Your task to perform on an android device: Go to privacy settings Image 0: 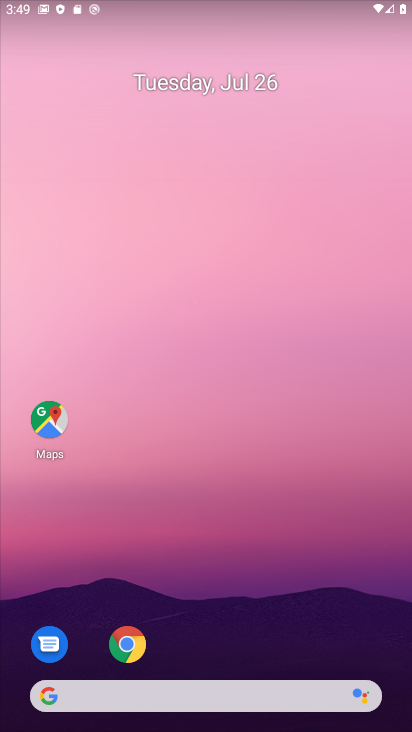
Step 0: drag from (389, 674) to (353, 196)
Your task to perform on an android device: Go to privacy settings Image 1: 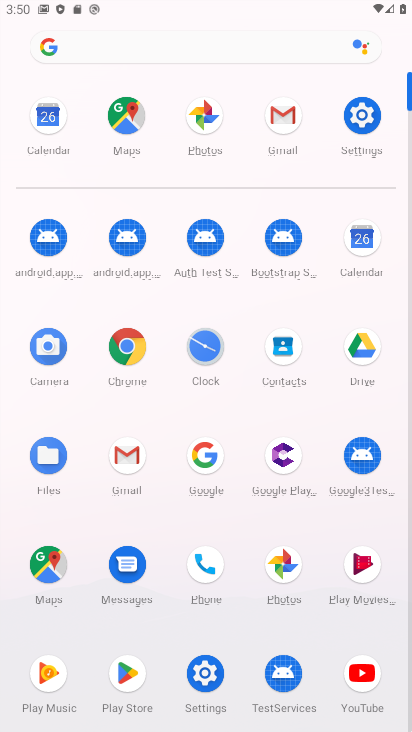
Step 1: click (204, 674)
Your task to perform on an android device: Go to privacy settings Image 2: 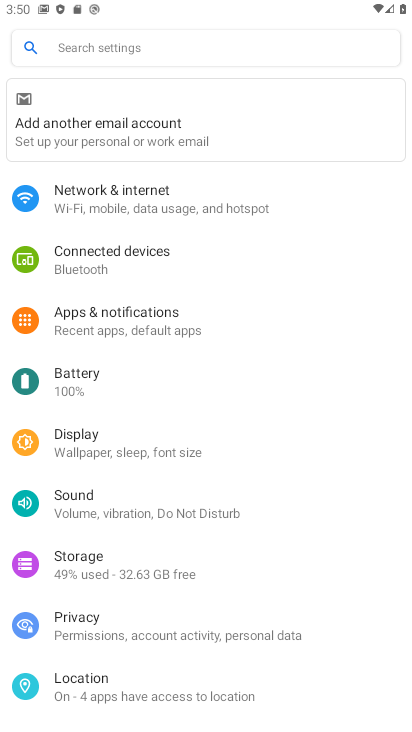
Step 2: drag from (316, 567) to (327, 198)
Your task to perform on an android device: Go to privacy settings Image 3: 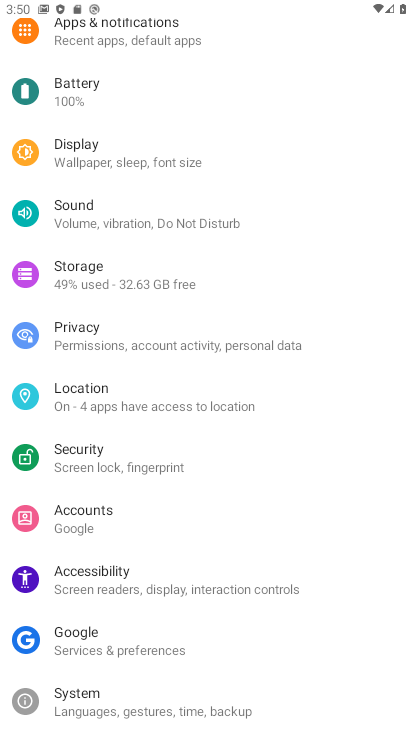
Step 3: click (80, 329)
Your task to perform on an android device: Go to privacy settings Image 4: 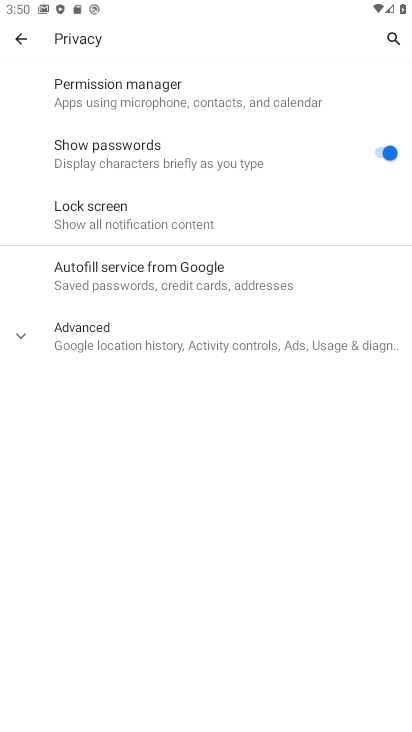
Step 4: click (21, 335)
Your task to perform on an android device: Go to privacy settings Image 5: 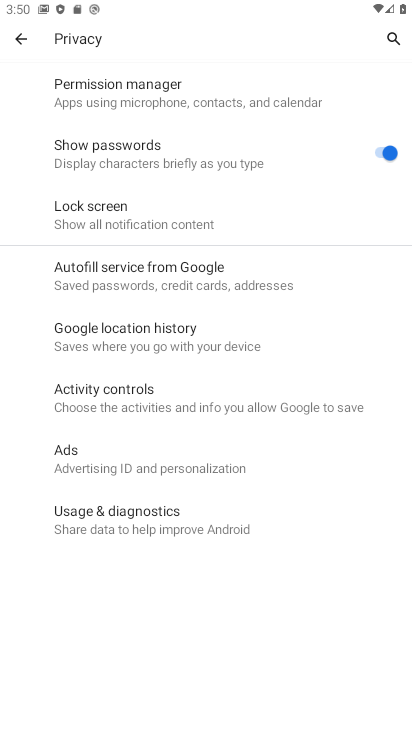
Step 5: task complete